Your task to perform on an android device: turn on notifications settings in the gmail app Image 0: 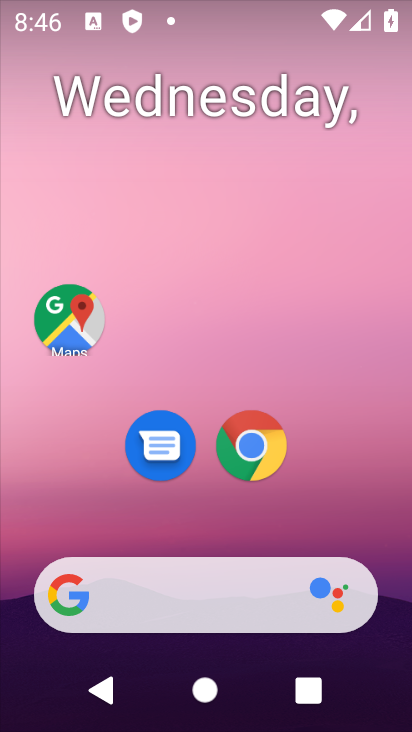
Step 0: drag from (337, 497) to (271, 86)
Your task to perform on an android device: turn on notifications settings in the gmail app Image 1: 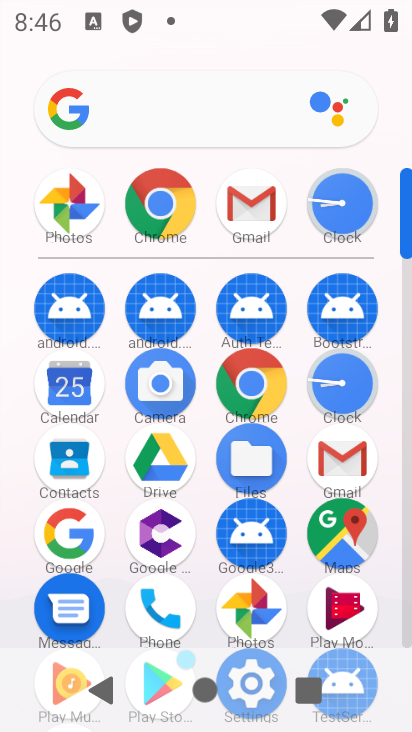
Step 1: click (246, 203)
Your task to perform on an android device: turn on notifications settings in the gmail app Image 2: 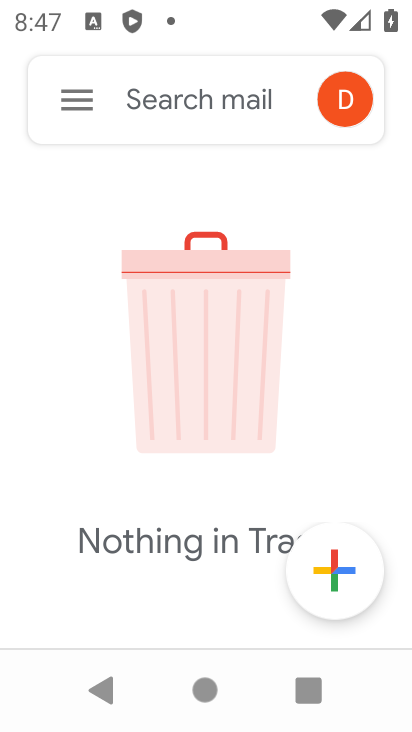
Step 2: click (63, 99)
Your task to perform on an android device: turn on notifications settings in the gmail app Image 3: 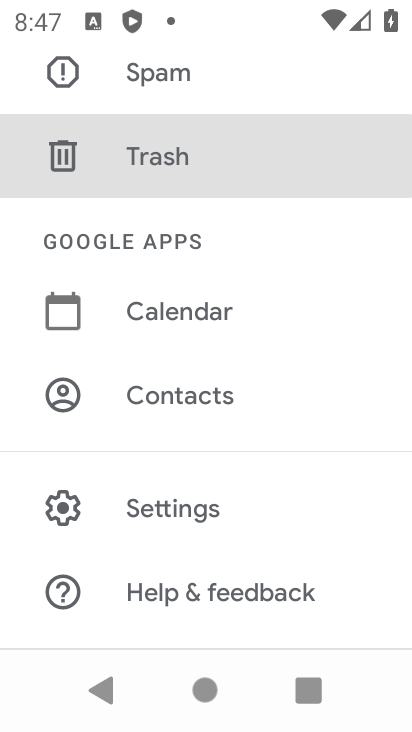
Step 3: click (166, 504)
Your task to perform on an android device: turn on notifications settings in the gmail app Image 4: 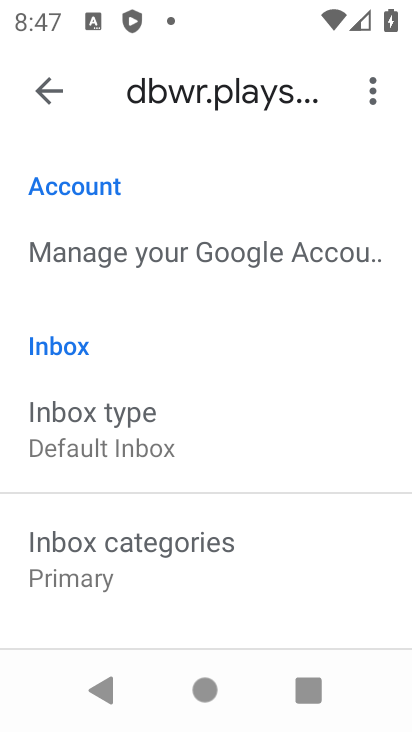
Step 4: drag from (157, 559) to (176, 127)
Your task to perform on an android device: turn on notifications settings in the gmail app Image 5: 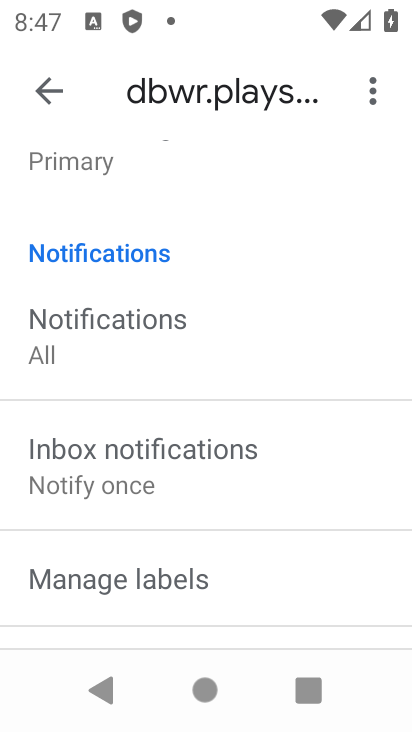
Step 5: drag from (167, 520) to (110, 173)
Your task to perform on an android device: turn on notifications settings in the gmail app Image 6: 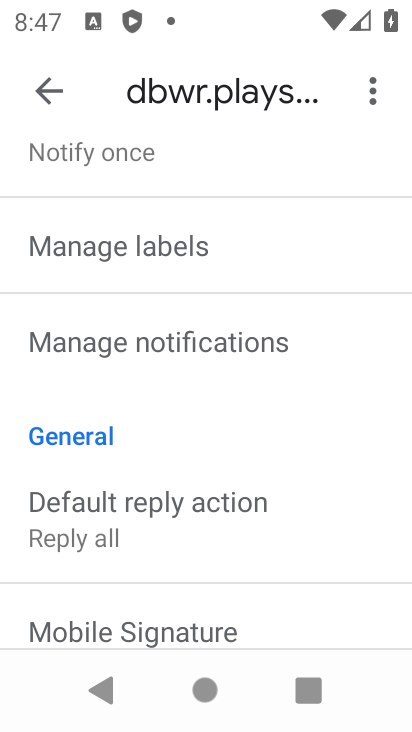
Step 6: drag from (167, 546) to (155, 255)
Your task to perform on an android device: turn on notifications settings in the gmail app Image 7: 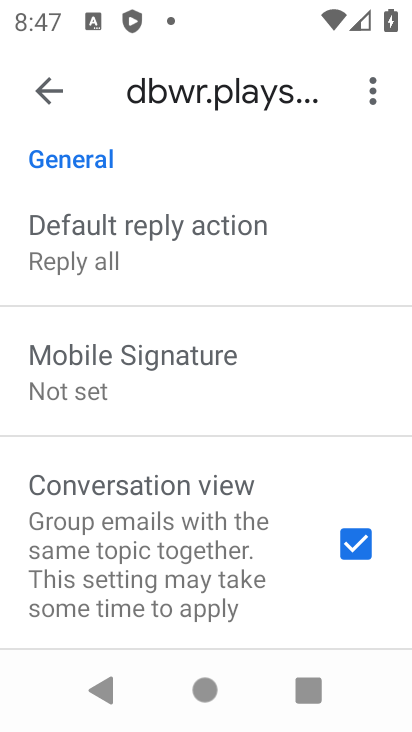
Step 7: drag from (190, 532) to (149, 147)
Your task to perform on an android device: turn on notifications settings in the gmail app Image 8: 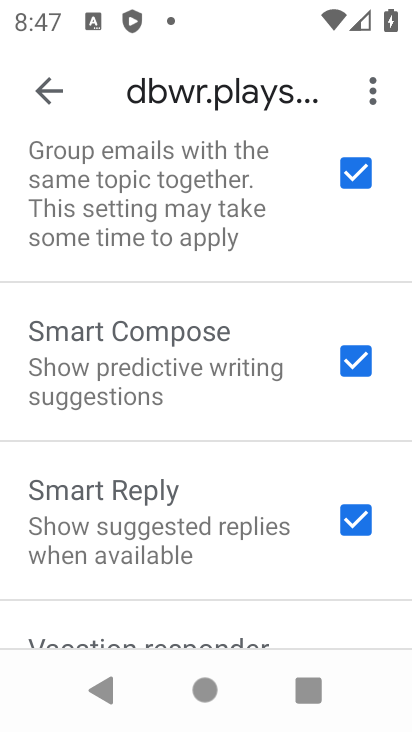
Step 8: drag from (164, 121) to (165, 571)
Your task to perform on an android device: turn on notifications settings in the gmail app Image 9: 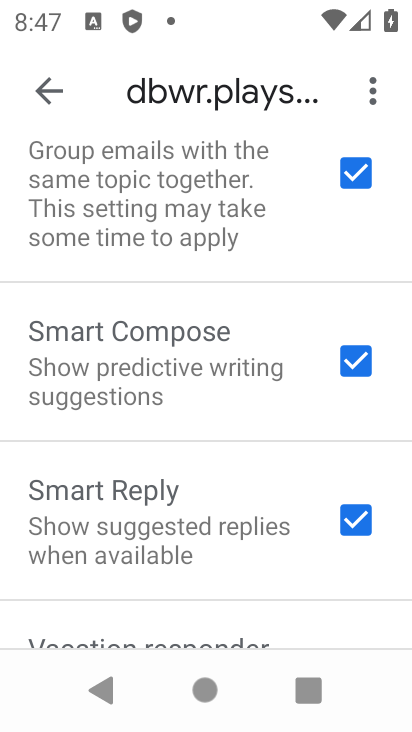
Step 9: drag from (204, 338) to (129, 670)
Your task to perform on an android device: turn on notifications settings in the gmail app Image 10: 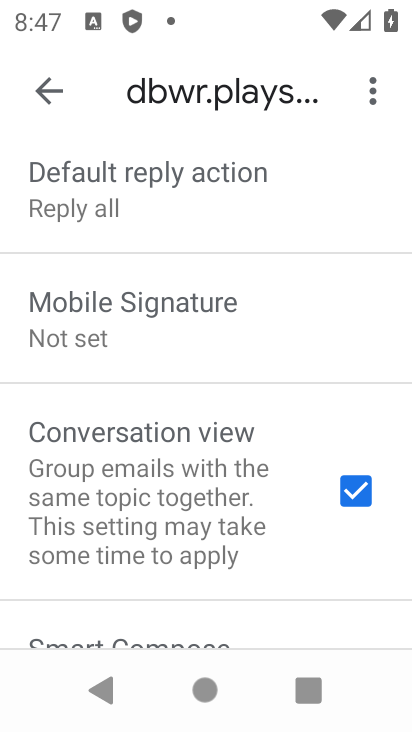
Step 10: drag from (157, 310) to (166, 653)
Your task to perform on an android device: turn on notifications settings in the gmail app Image 11: 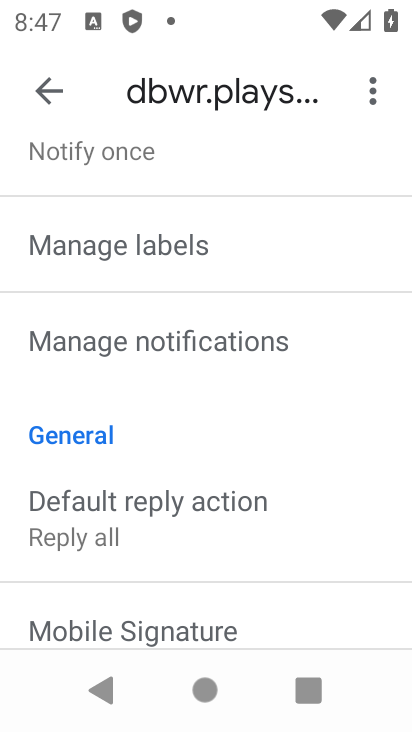
Step 11: drag from (176, 261) to (209, 623)
Your task to perform on an android device: turn on notifications settings in the gmail app Image 12: 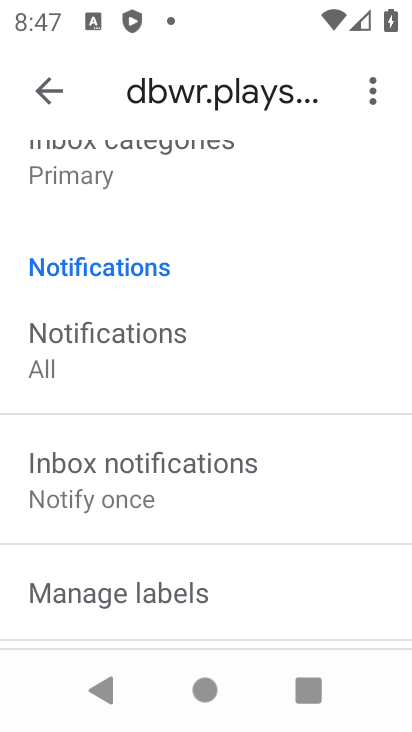
Step 12: click (100, 357)
Your task to perform on an android device: turn on notifications settings in the gmail app Image 13: 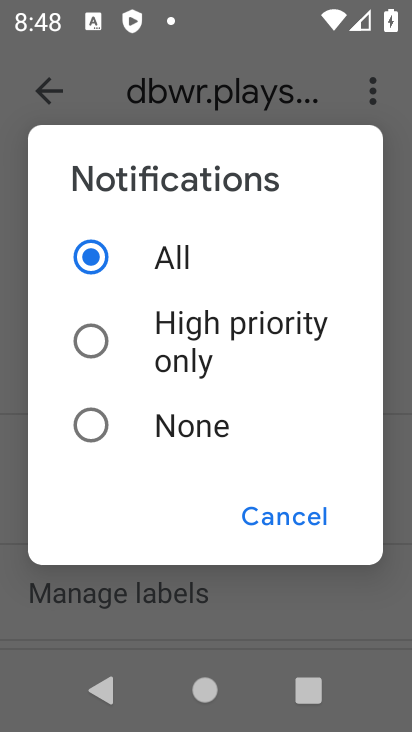
Step 13: task complete